Your task to perform on an android device: open device folders in google photos Image 0: 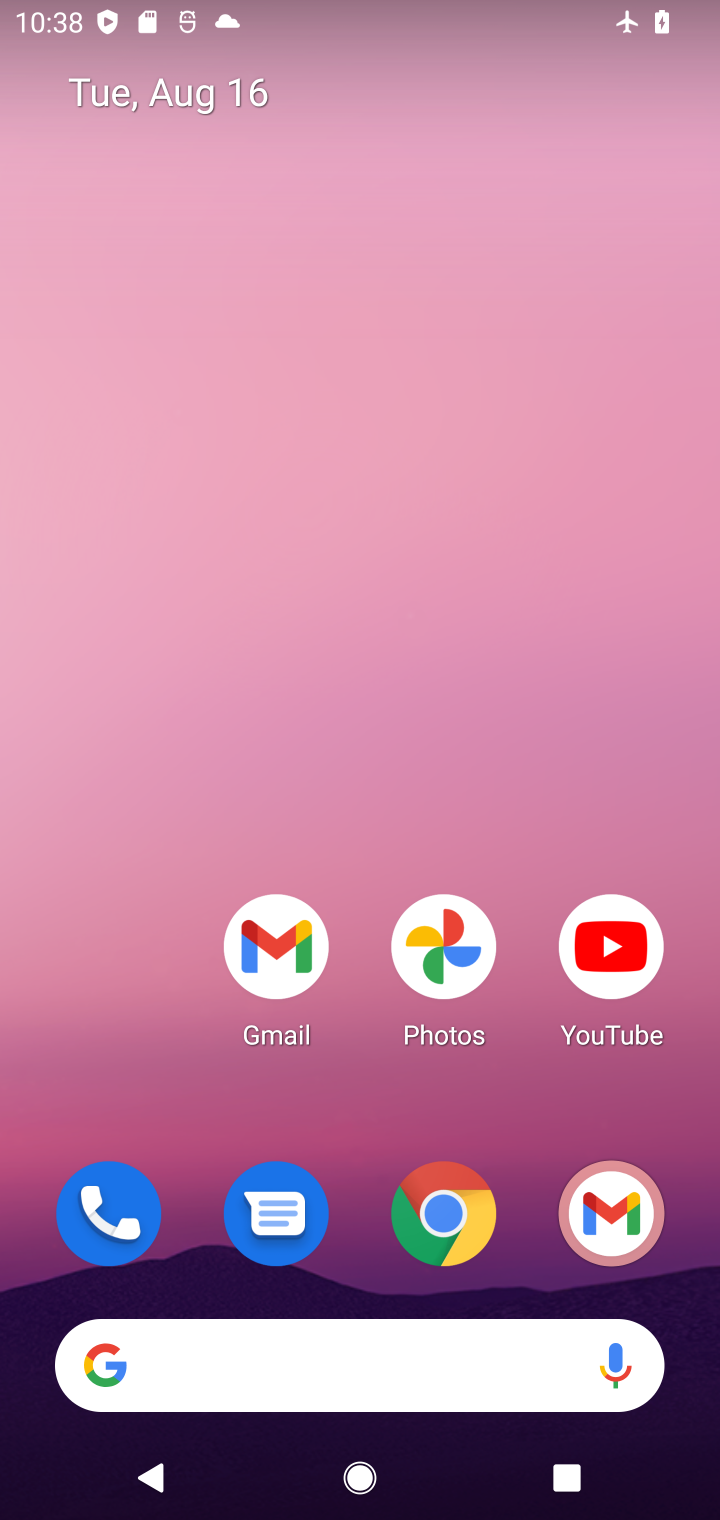
Step 0: drag from (297, 592) to (331, 176)
Your task to perform on an android device: open device folders in google photos Image 1: 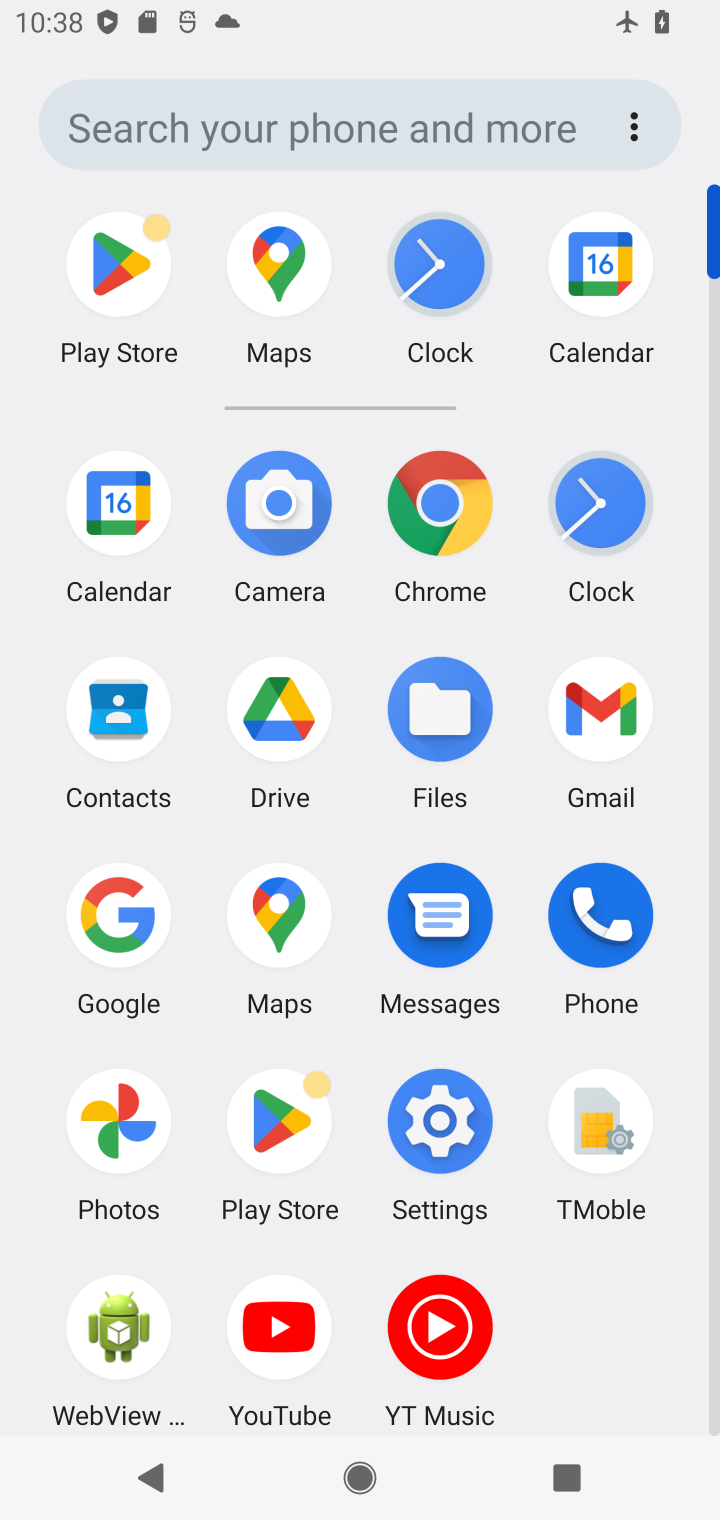
Step 1: click (98, 1083)
Your task to perform on an android device: open device folders in google photos Image 2: 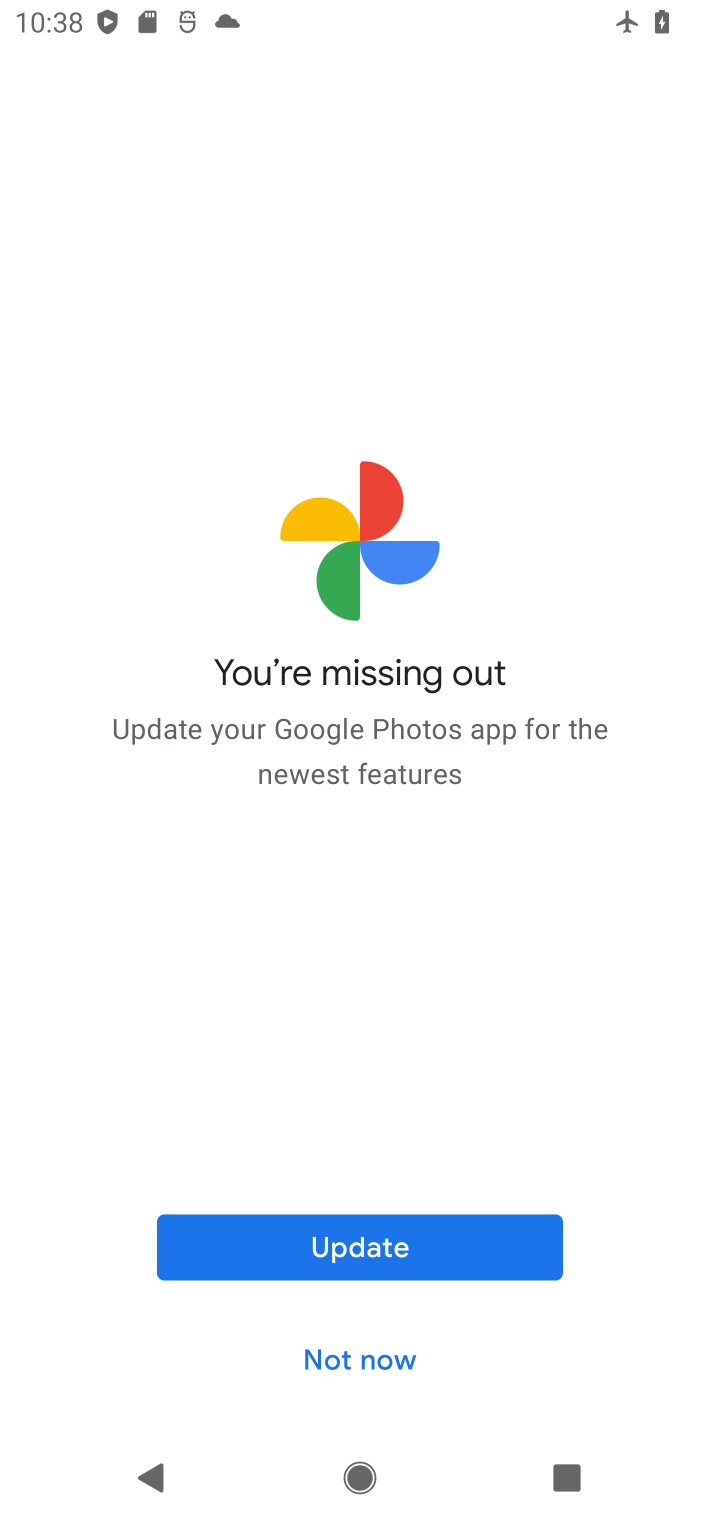
Step 2: click (342, 1368)
Your task to perform on an android device: open device folders in google photos Image 3: 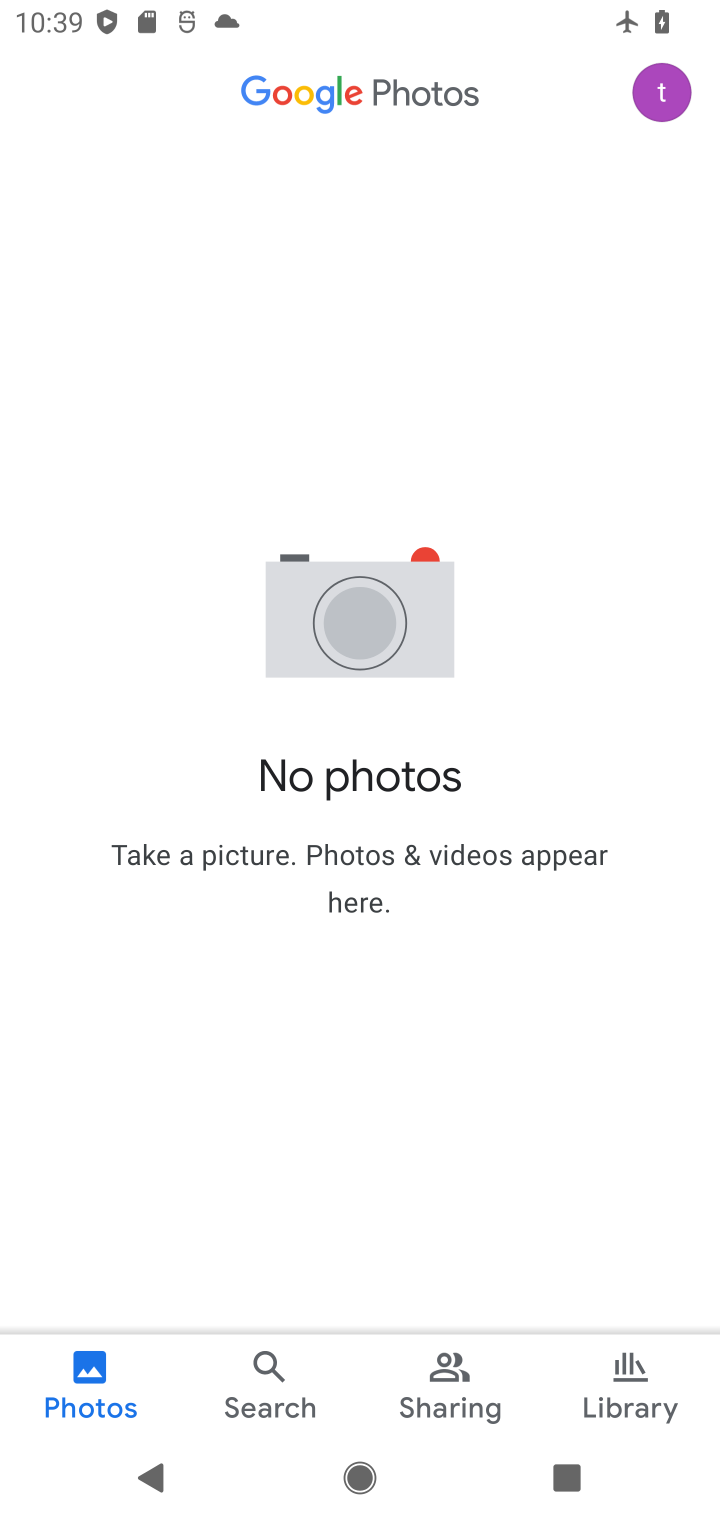
Step 3: task complete